Your task to perform on an android device: Open the stopwatch Image 0: 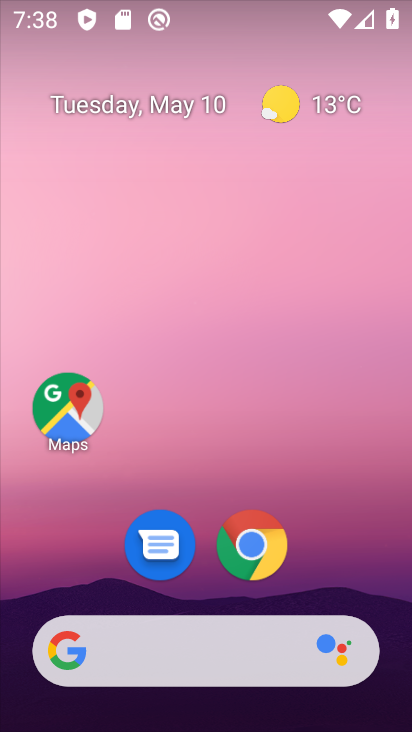
Step 0: drag from (214, 589) to (239, 7)
Your task to perform on an android device: Open the stopwatch Image 1: 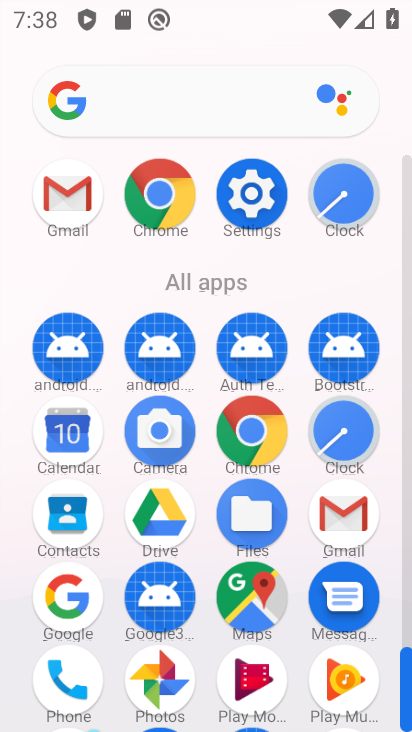
Step 1: click (336, 430)
Your task to perform on an android device: Open the stopwatch Image 2: 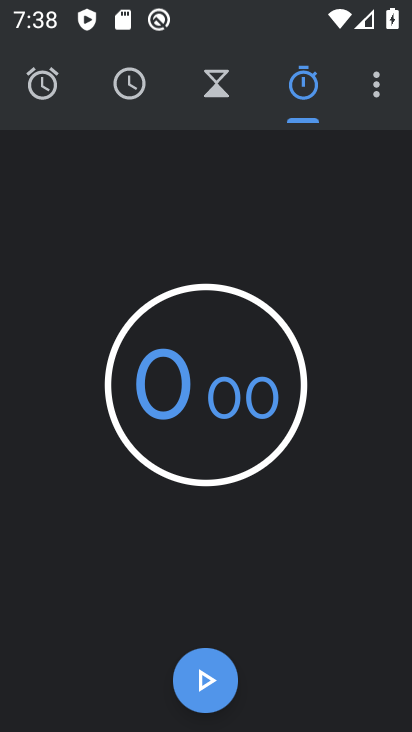
Step 2: click (204, 693)
Your task to perform on an android device: Open the stopwatch Image 3: 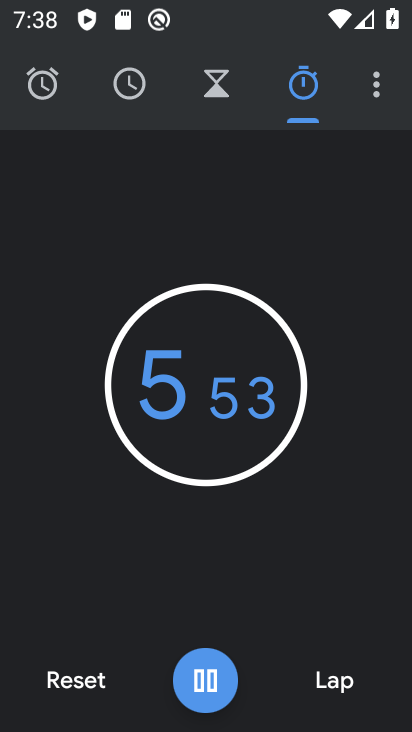
Step 3: task complete